Your task to perform on an android device: Open the Play Movies app and select the watchlist tab. Image 0: 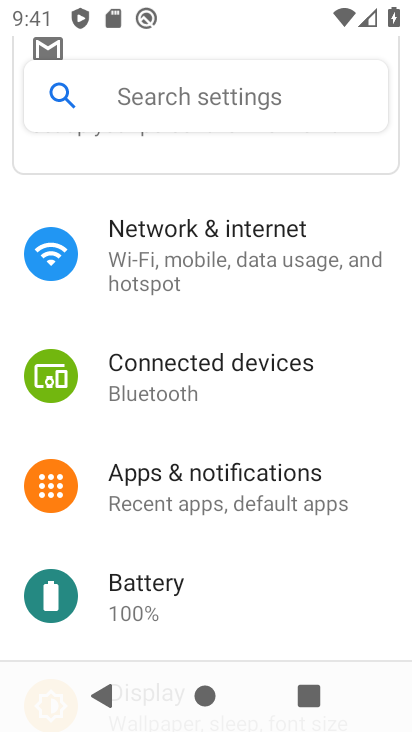
Step 0: press home button
Your task to perform on an android device: Open the Play Movies app and select the watchlist tab. Image 1: 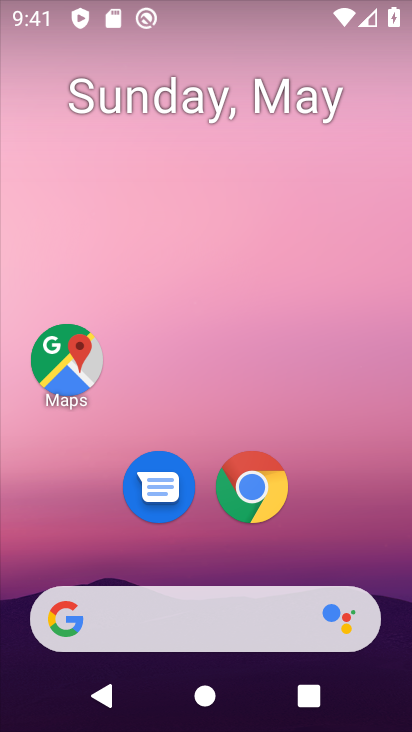
Step 1: drag from (354, 548) to (330, 87)
Your task to perform on an android device: Open the Play Movies app and select the watchlist tab. Image 2: 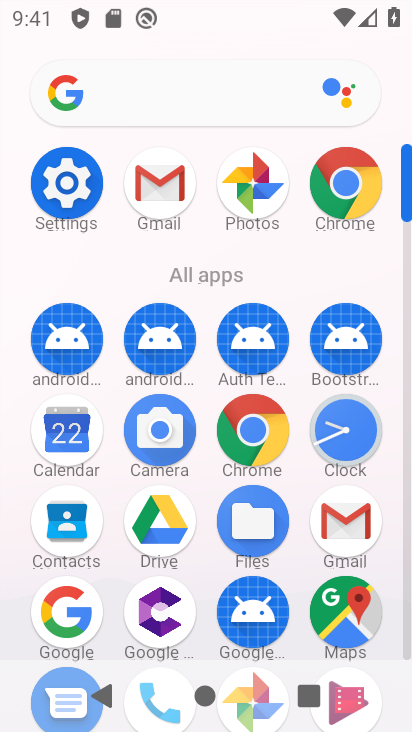
Step 2: drag from (391, 650) to (384, 480)
Your task to perform on an android device: Open the Play Movies app and select the watchlist tab. Image 3: 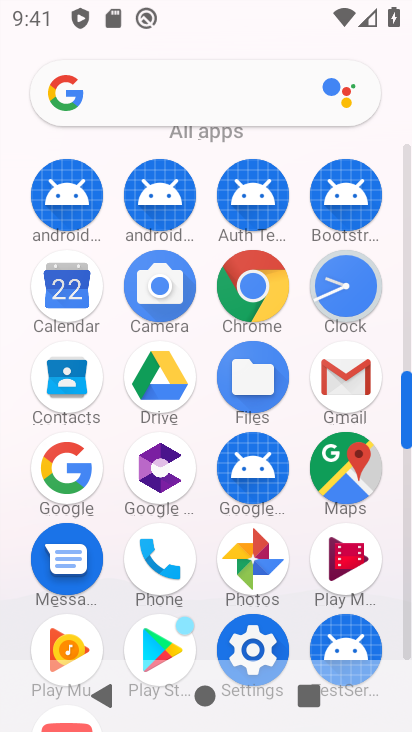
Step 3: drag from (398, 627) to (383, 476)
Your task to perform on an android device: Open the Play Movies app and select the watchlist tab. Image 4: 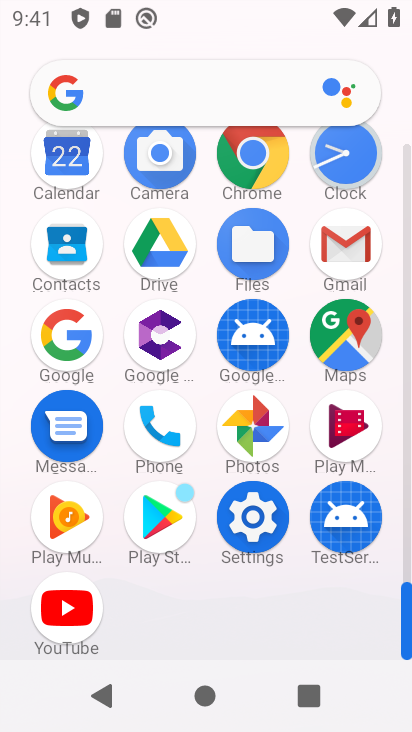
Step 4: click (329, 442)
Your task to perform on an android device: Open the Play Movies app and select the watchlist tab. Image 5: 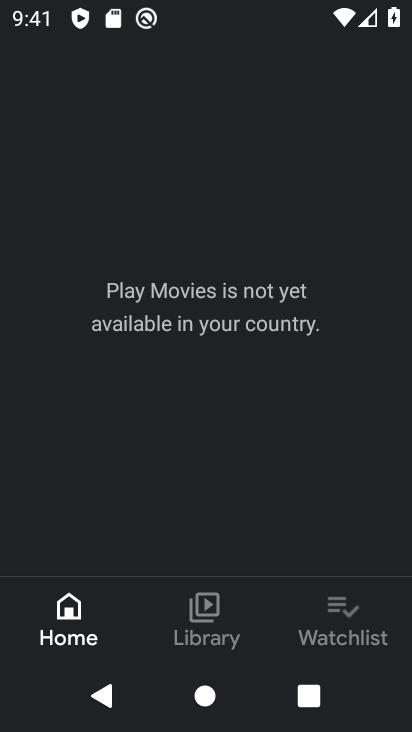
Step 5: click (347, 609)
Your task to perform on an android device: Open the Play Movies app and select the watchlist tab. Image 6: 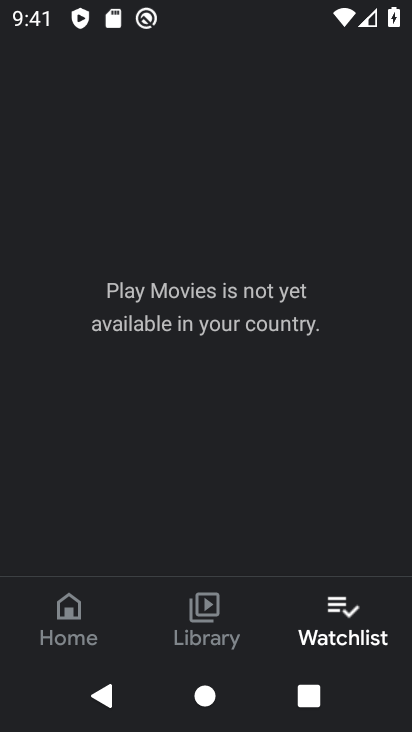
Step 6: task complete